Your task to perform on an android device: Open CNN.com Image 0: 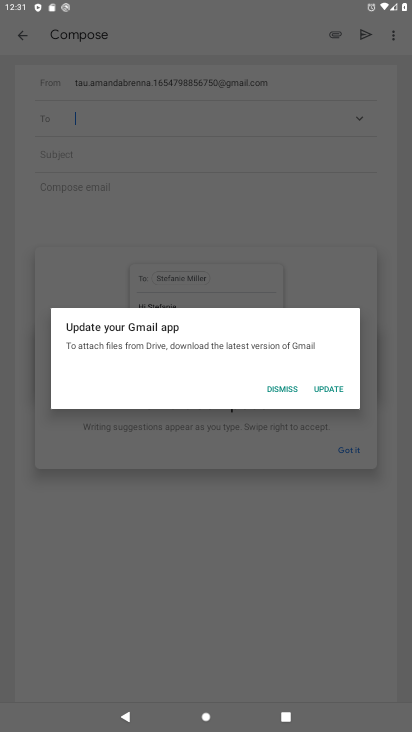
Step 0: press home button
Your task to perform on an android device: Open CNN.com Image 1: 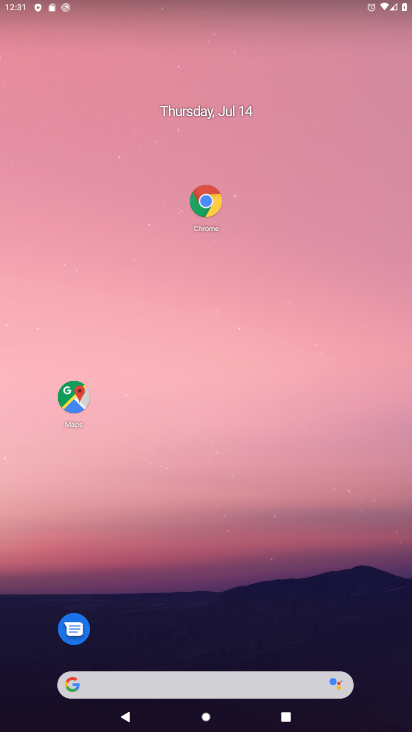
Step 1: click (206, 220)
Your task to perform on an android device: Open CNN.com Image 2: 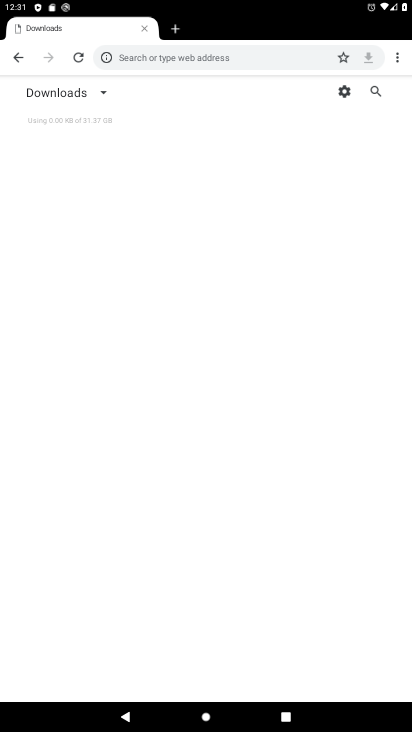
Step 2: click (142, 29)
Your task to perform on an android device: Open CNN.com Image 3: 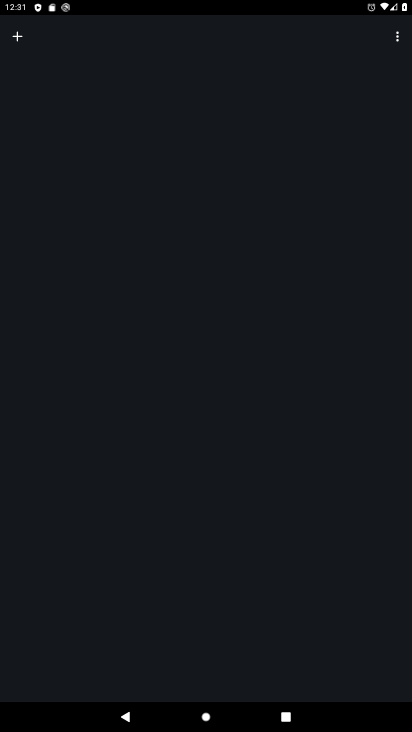
Step 3: click (12, 35)
Your task to perform on an android device: Open CNN.com Image 4: 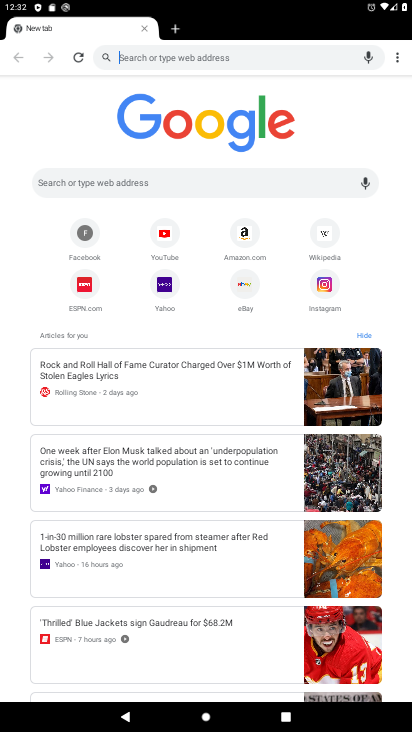
Step 4: click (117, 188)
Your task to perform on an android device: Open CNN.com Image 5: 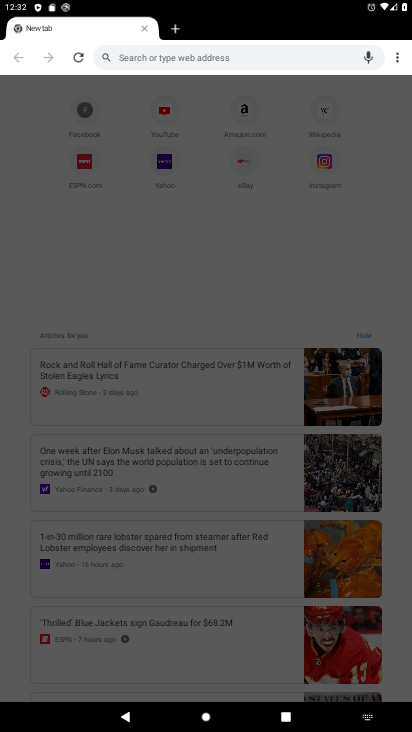
Step 5: type "cnn"
Your task to perform on an android device: Open CNN.com Image 6: 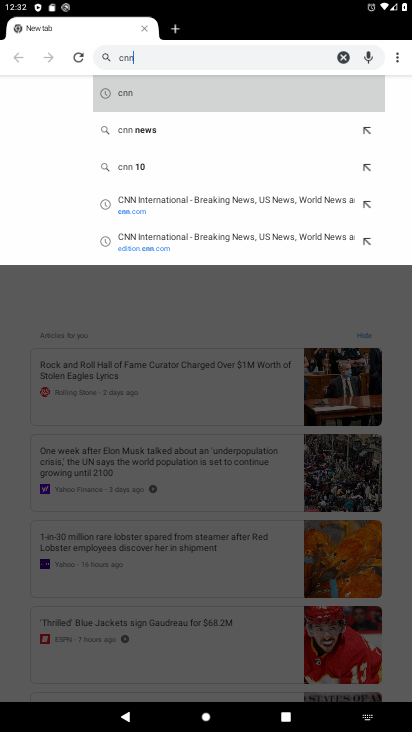
Step 6: click (141, 209)
Your task to perform on an android device: Open CNN.com Image 7: 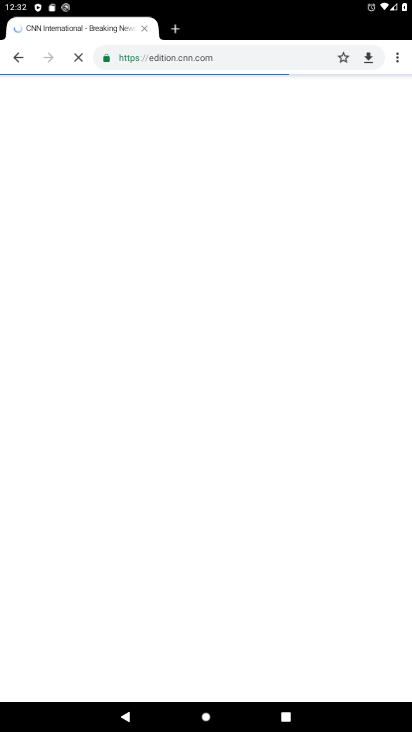
Step 7: task complete